Your task to perform on an android device: Open the calendar app, open the side menu, and click the "Day" option Image 0: 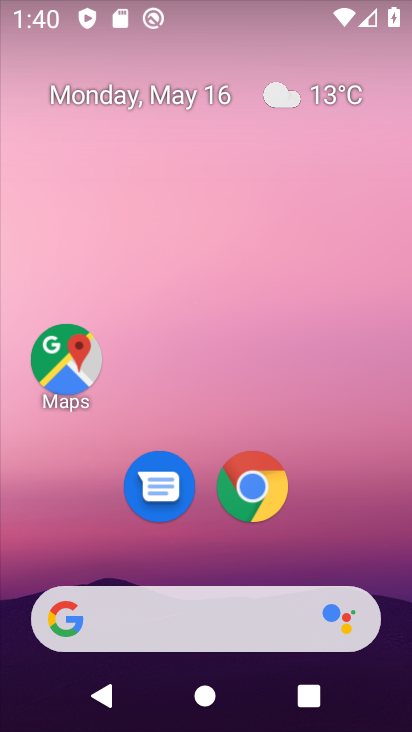
Step 0: drag from (332, 512) to (271, 10)
Your task to perform on an android device: Open the calendar app, open the side menu, and click the "Day" option Image 1: 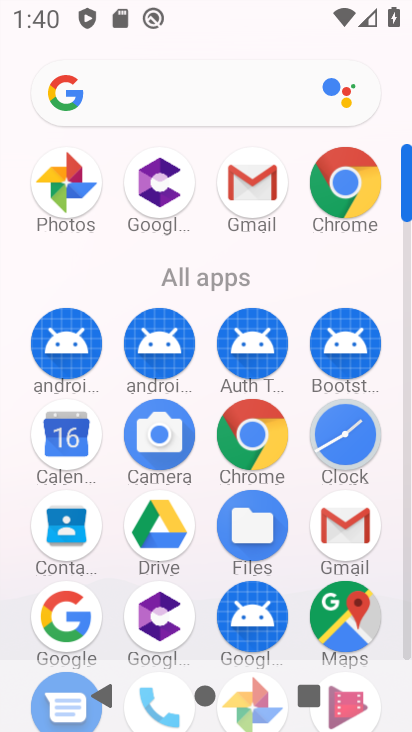
Step 1: click (67, 440)
Your task to perform on an android device: Open the calendar app, open the side menu, and click the "Day" option Image 2: 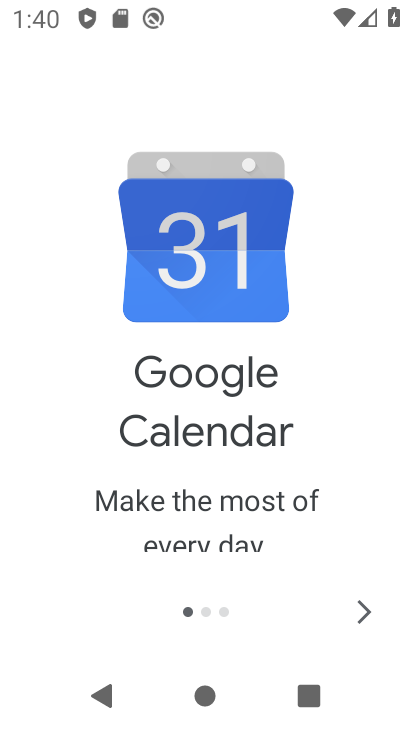
Step 2: click (368, 616)
Your task to perform on an android device: Open the calendar app, open the side menu, and click the "Day" option Image 3: 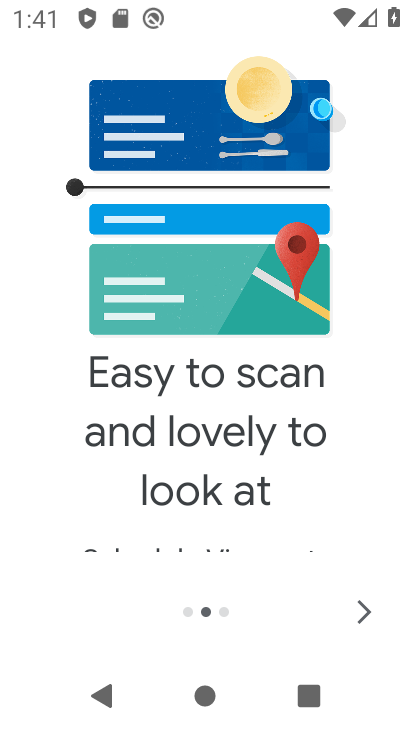
Step 3: click (365, 618)
Your task to perform on an android device: Open the calendar app, open the side menu, and click the "Day" option Image 4: 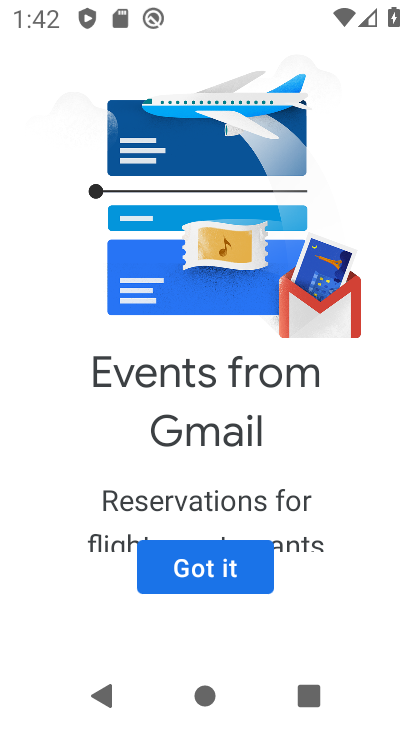
Step 4: click (187, 580)
Your task to perform on an android device: Open the calendar app, open the side menu, and click the "Day" option Image 5: 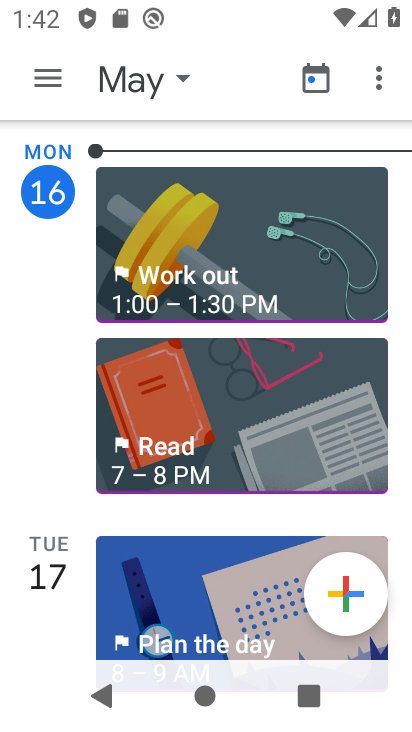
Step 5: click (33, 93)
Your task to perform on an android device: Open the calendar app, open the side menu, and click the "Day" option Image 6: 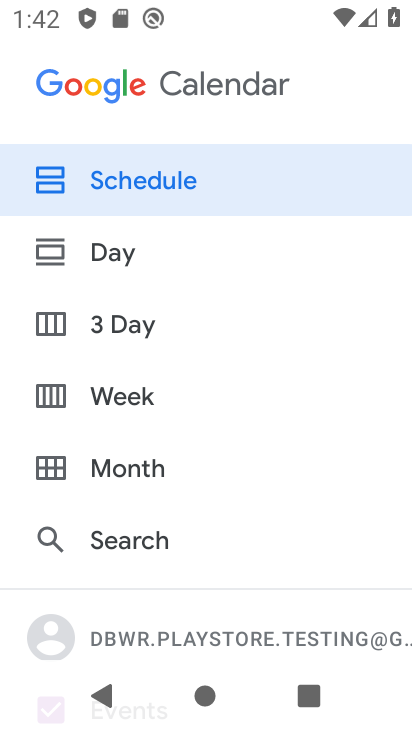
Step 6: click (120, 246)
Your task to perform on an android device: Open the calendar app, open the side menu, and click the "Day" option Image 7: 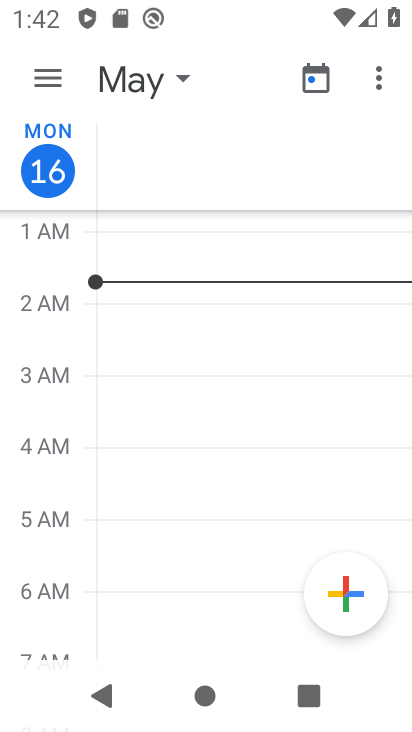
Step 7: task complete